Your task to perform on an android device: add a contact Image 0: 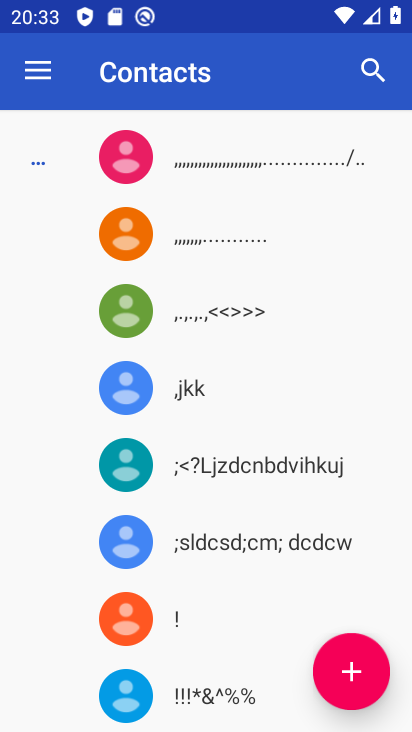
Step 0: press home button
Your task to perform on an android device: add a contact Image 1: 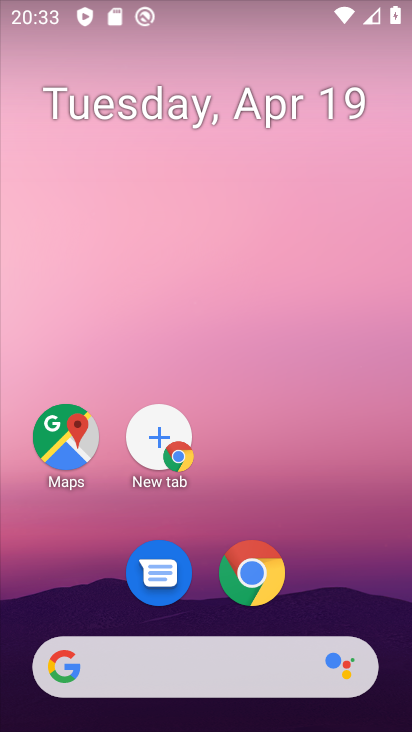
Step 1: drag from (348, 342) to (327, 196)
Your task to perform on an android device: add a contact Image 2: 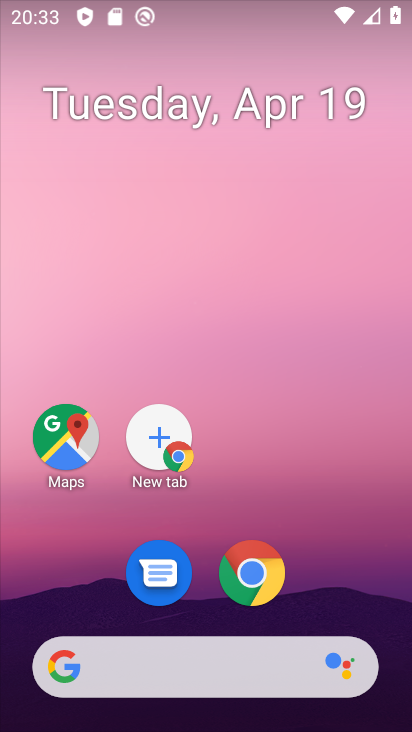
Step 2: drag from (386, 581) to (362, 208)
Your task to perform on an android device: add a contact Image 3: 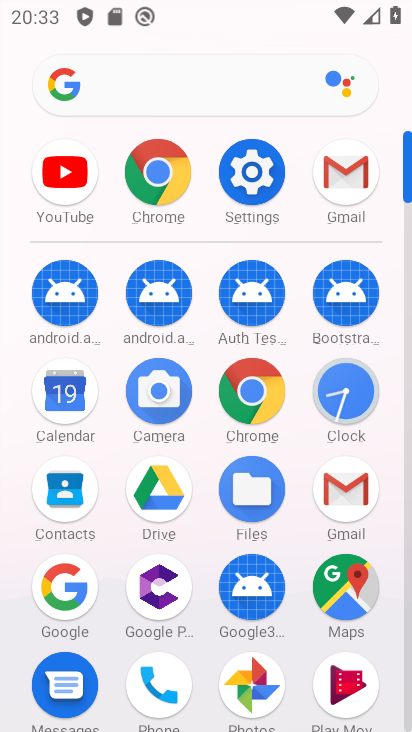
Step 3: click (48, 510)
Your task to perform on an android device: add a contact Image 4: 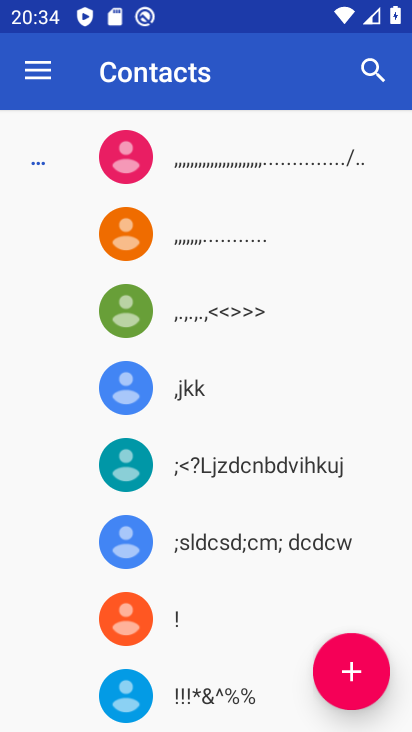
Step 4: click (362, 672)
Your task to perform on an android device: add a contact Image 5: 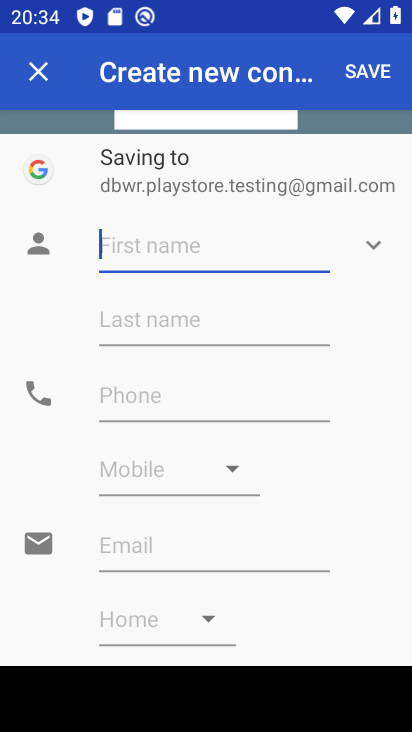
Step 5: type "ghhhhggg"
Your task to perform on an android device: add a contact Image 6: 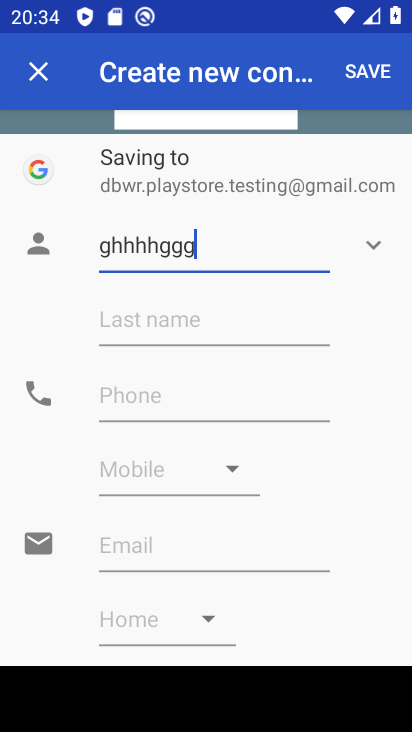
Step 6: click (192, 313)
Your task to perform on an android device: add a contact Image 7: 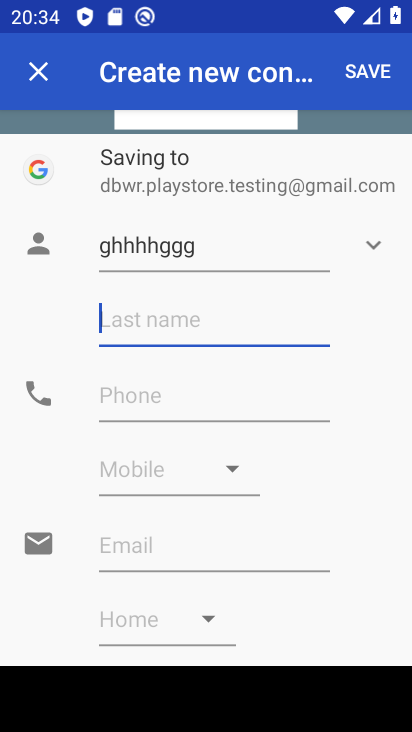
Step 7: type "gdgdhhdhd"
Your task to perform on an android device: add a contact Image 8: 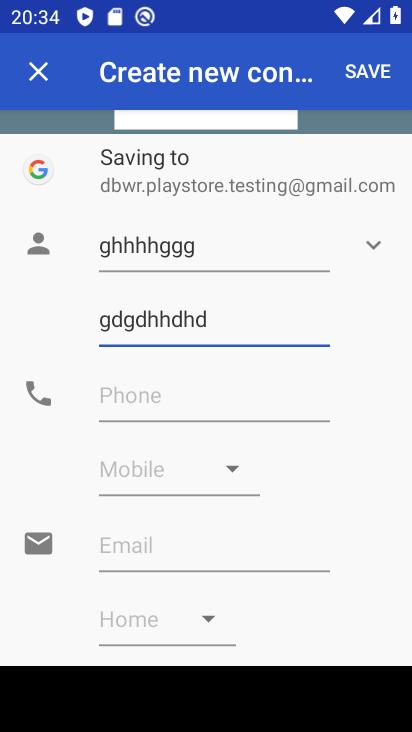
Step 8: click (165, 390)
Your task to perform on an android device: add a contact Image 9: 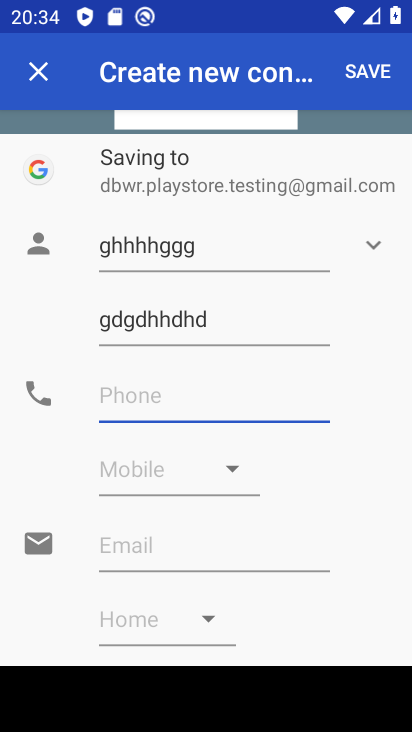
Step 9: type "33355432234433"
Your task to perform on an android device: add a contact Image 10: 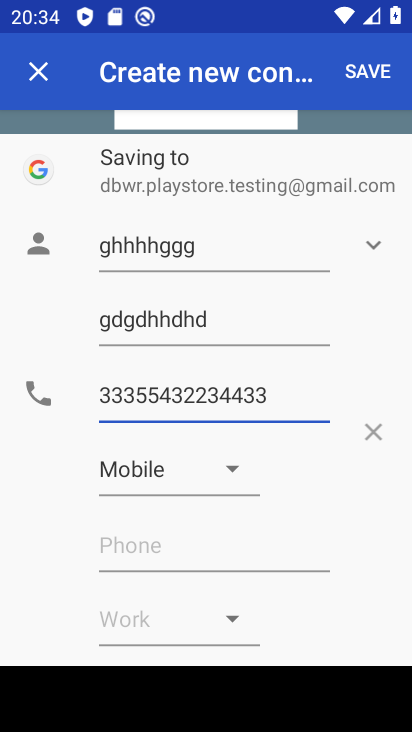
Step 10: click (364, 71)
Your task to perform on an android device: add a contact Image 11: 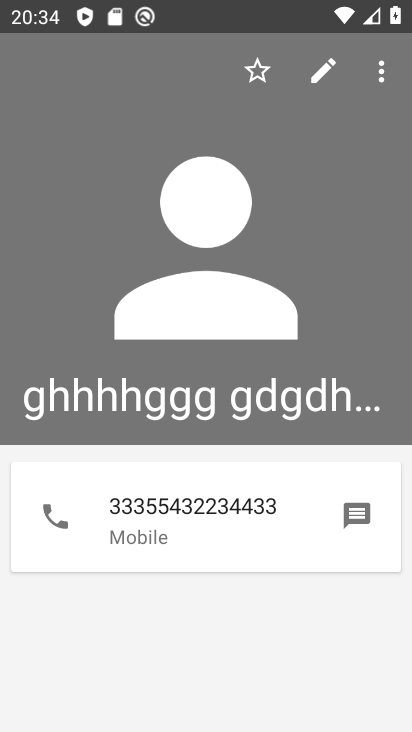
Step 11: task complete